Your task to perform on an android device: Open internet settings Image 0: 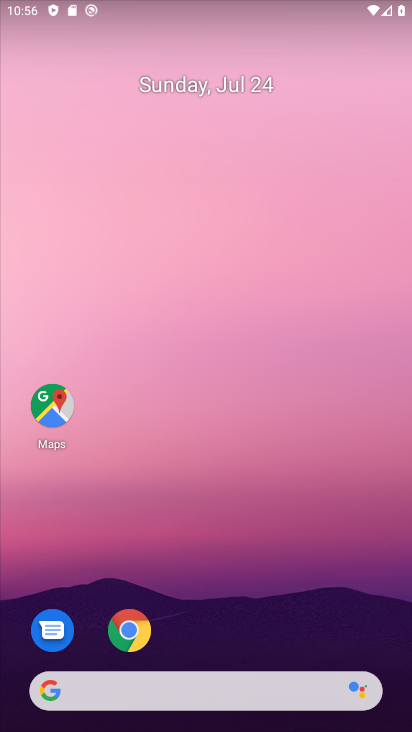
Step 0: click (190, 656)
Your task to perform on an android device: Open internet settings Image 1: 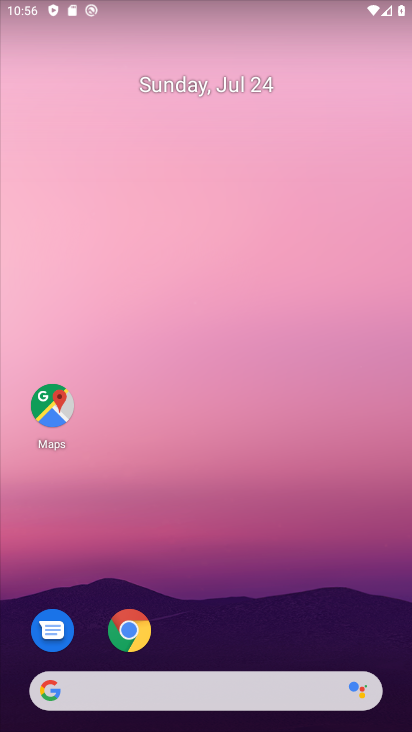
Step 1: drag from (179, 422) to (188, 216)
Your task to perform on an android device: Open internet settings Image 2: 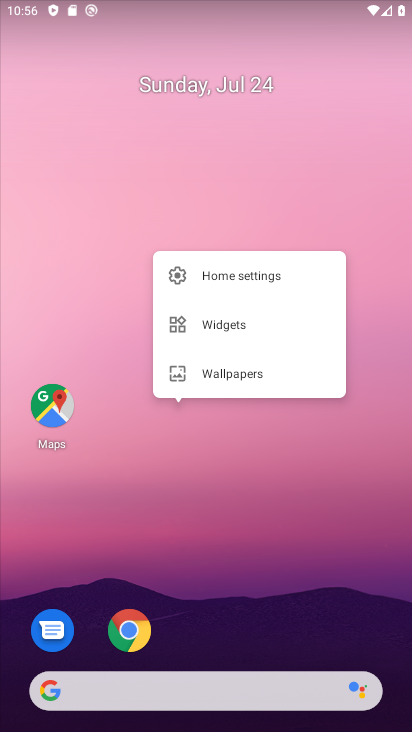
Step 2: click (184, 549)
Your task to perform on an android device: Open internet settings Image 3: 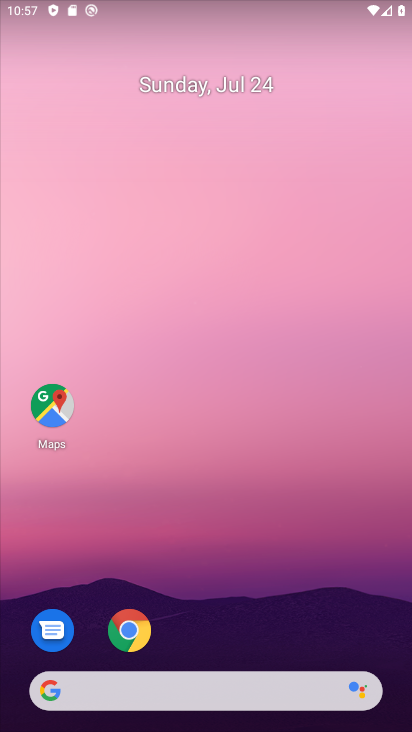
Step 3: drag from (171, 617) to (353, 14)
Your task to perform on an android device: Open internet settings Image 4: 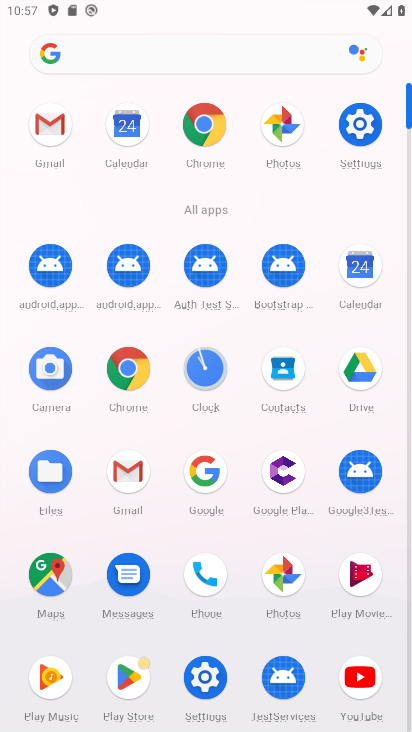
Step 4: click (354, 158)
Your task to perform on an android device: Open internet settings Image 5: 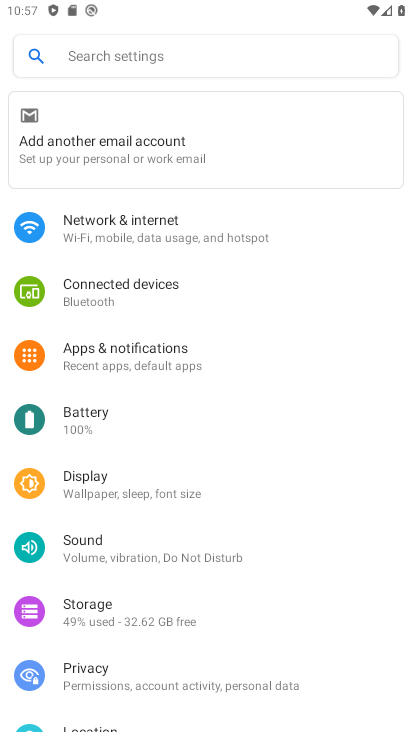
Step 5: click (104, 238)
Your task to perform on an android device: Open internet settings Image 6: 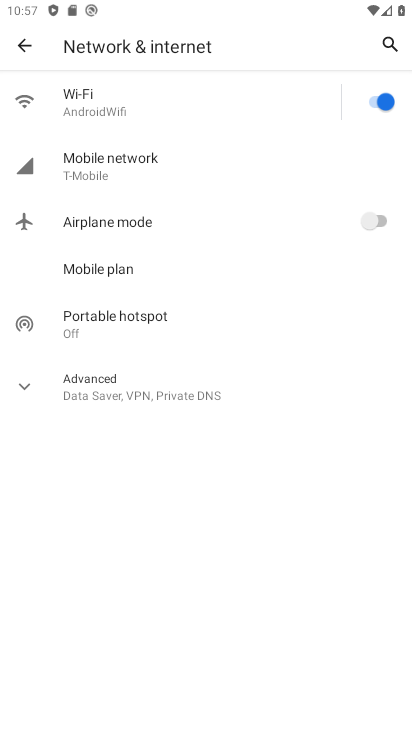
Step 6: task complete